Your task to perform on an android device: Search for a custom made wallet on Etsy Image 0: 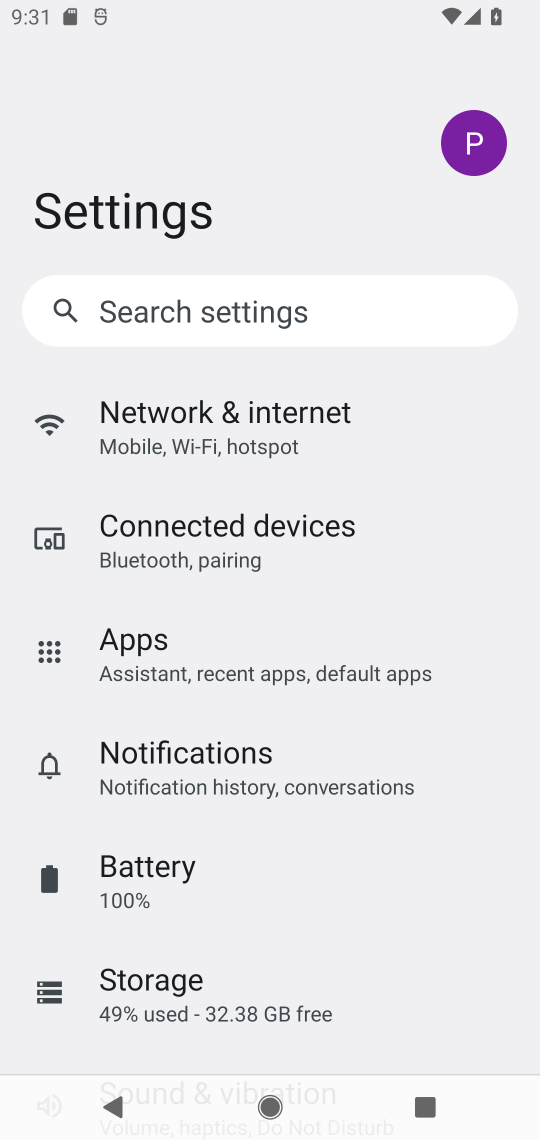
Step 0: press home button
Your task to perform on an android device: Search for a custom made wallet on Etsy Image 1: 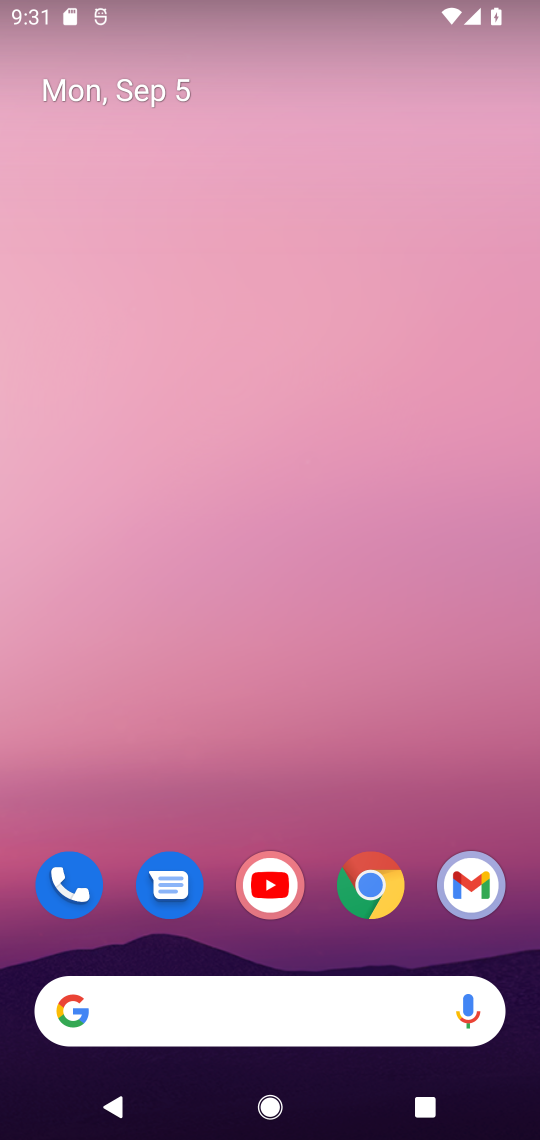
Step 1: drag from (300, 906) to (256, 50)
Your task to perform on an android device: Search for a custom made wallet on Etsy Image 2: 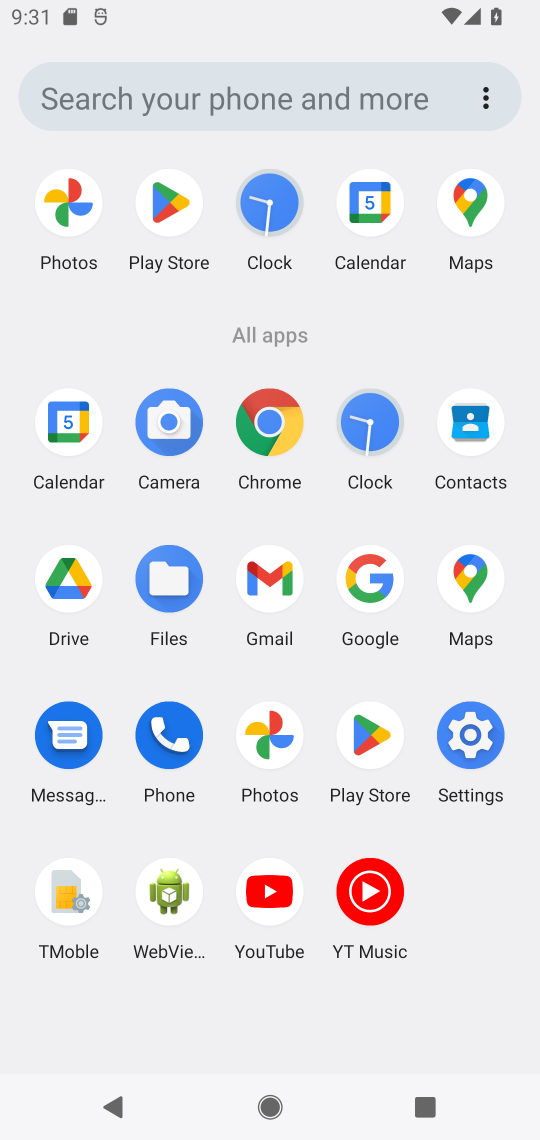
Step 2: click (365, 578)
Your task to perform on an android device: Search for a custom made wallet on Etsy Image 3: 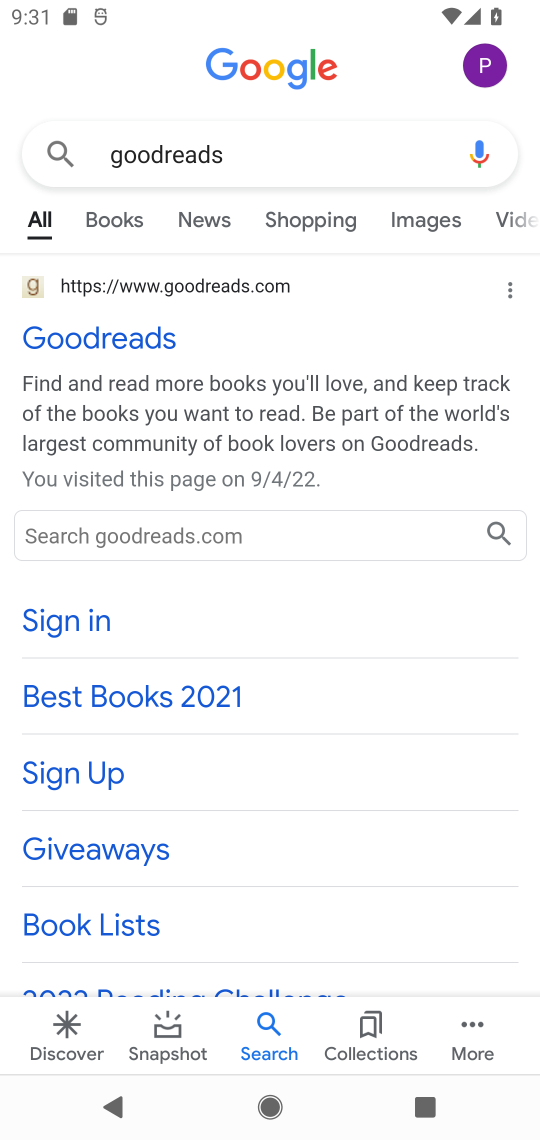
Step 3: click (59, 337)
Your task to perform on an android device: Search for a custom made wallet on Etsy Image 4: 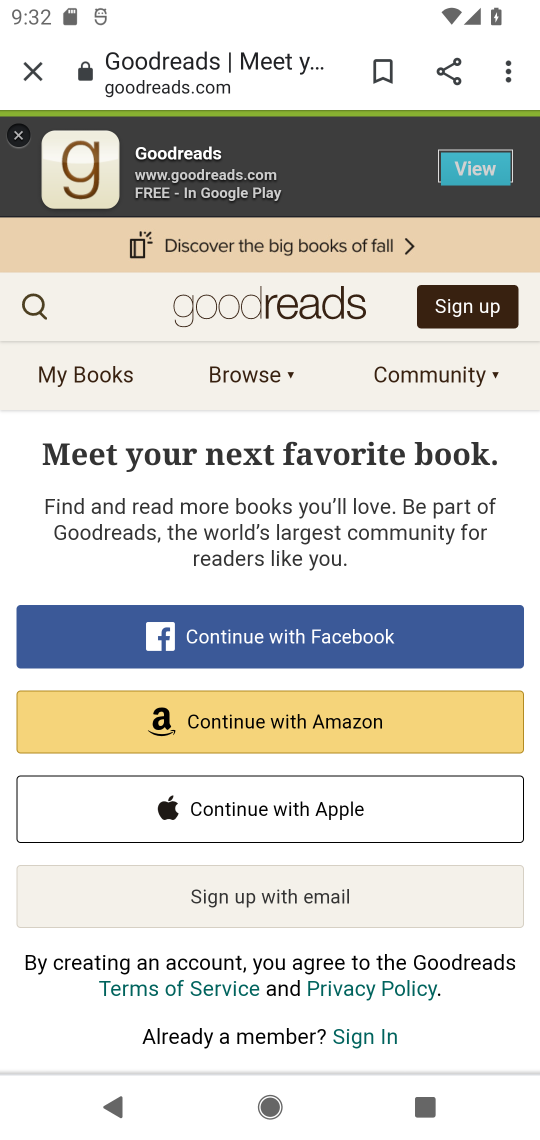
Step 4: click (505, 81)
Your task to perform on an android device: Search for a custom made wallet on Etsy Image 5: 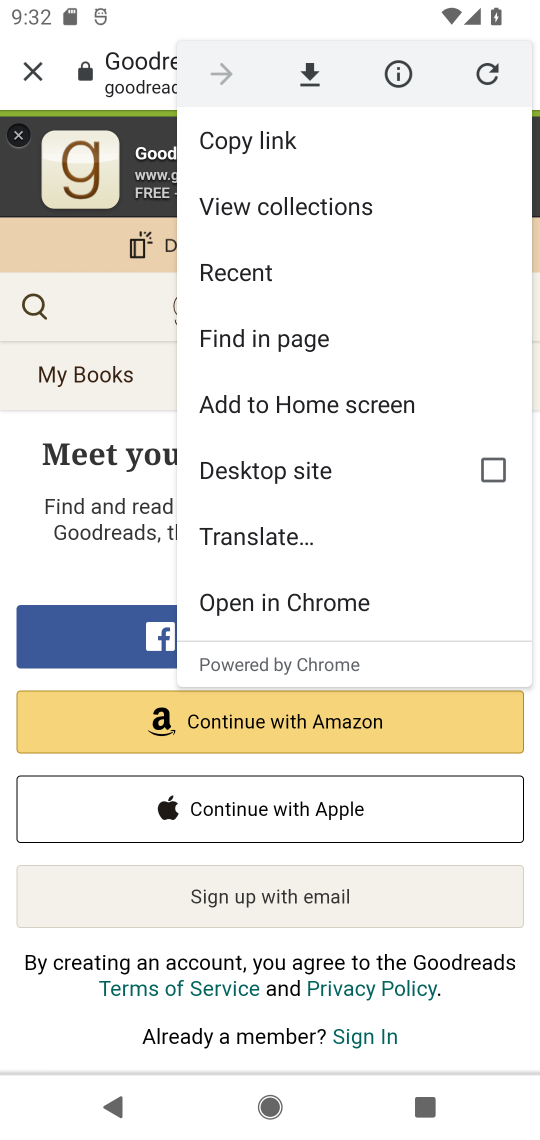
Step 5: click (36, 73)
Your task to perform on an android device: Search for a custom made wallet on Etsy Image 6: 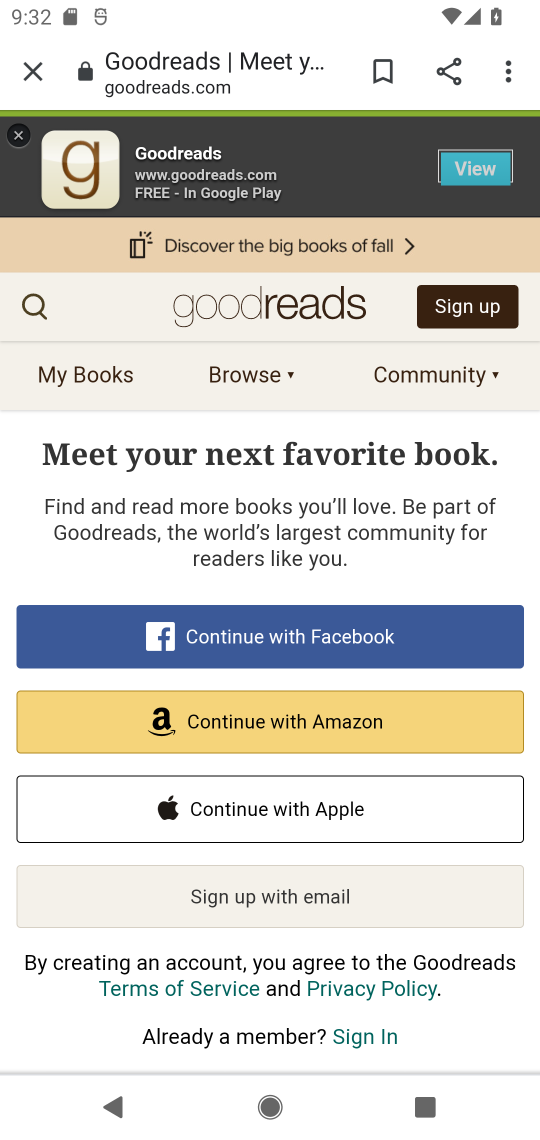
Step 6: click (27, 62)
Your task to perform on an android device: Search for a custom made wallet on Etsy Image 7: 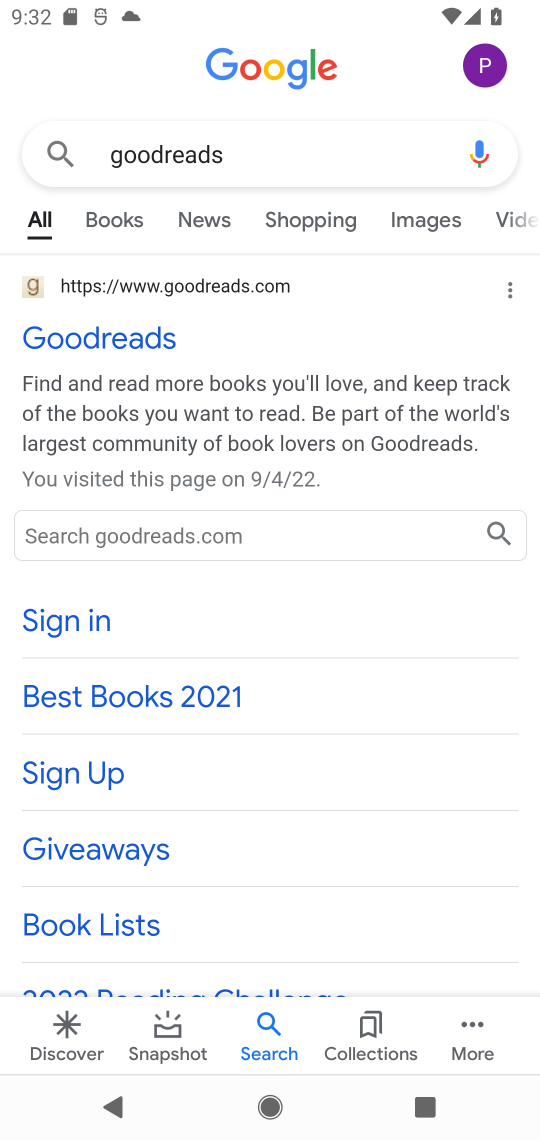
Step 7: click (292, 157)
Your task to perform on an android device: Search for a custom made wallet on Etsy Image 8: 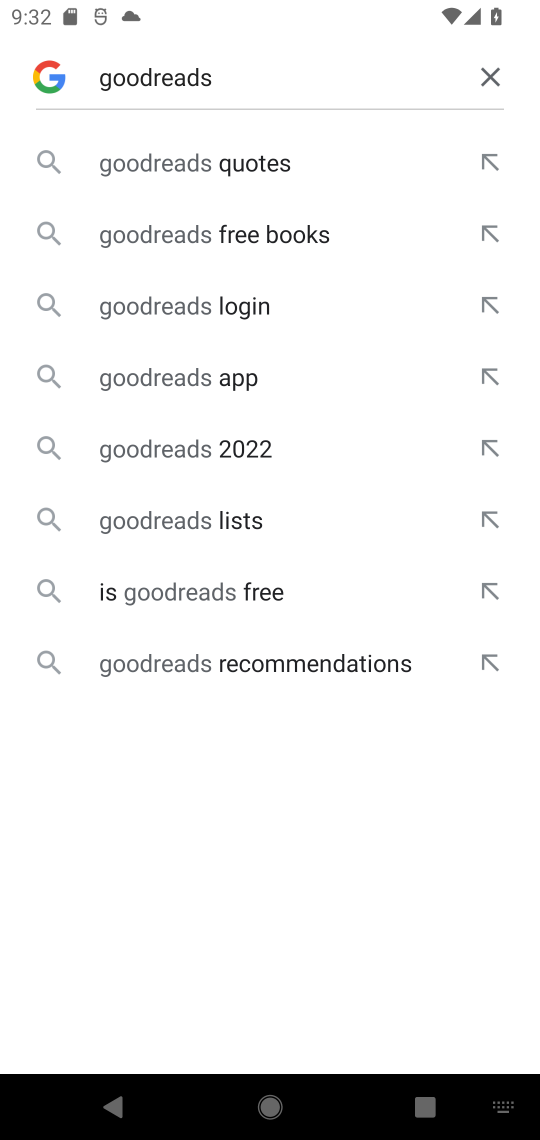
Step 8: click (491, 78)
Your task to perform on an android device: Search for a custom made wallet on Etsy Image 9: 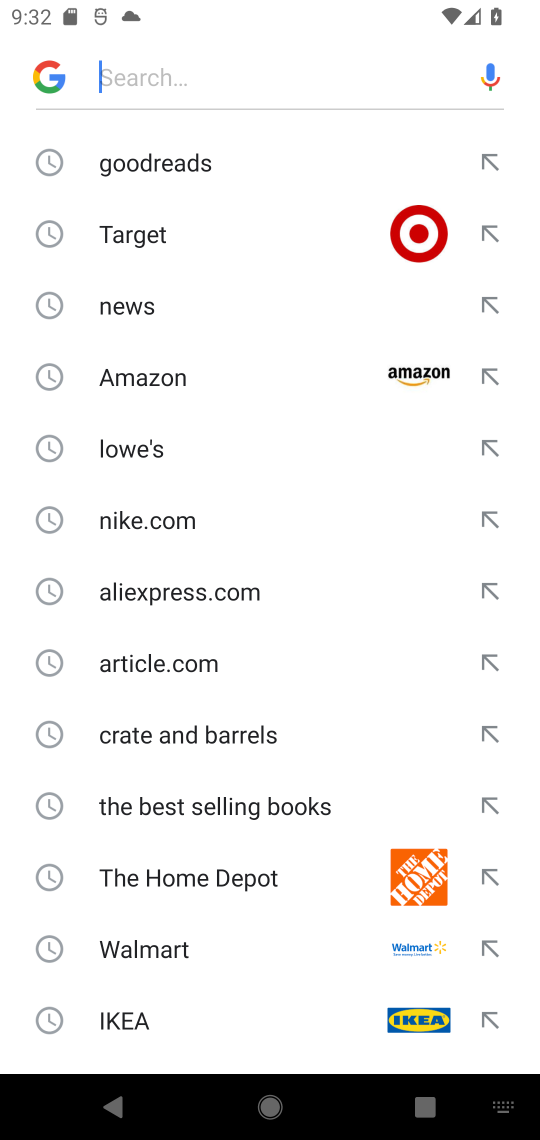
Step 9: type "Etsy"
Your task to perform on an android device: Search for a custom made wallet on Etsy Image 10: 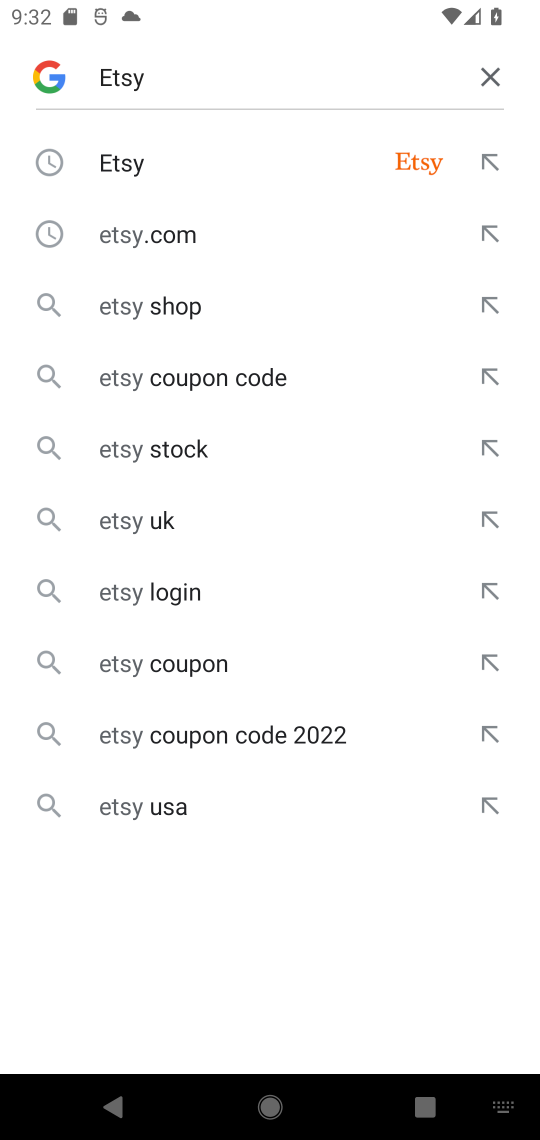
Step 10: click (121, 163)
Your task to perform on an android device: Search for a custom made wallet on Etsy Image 11: 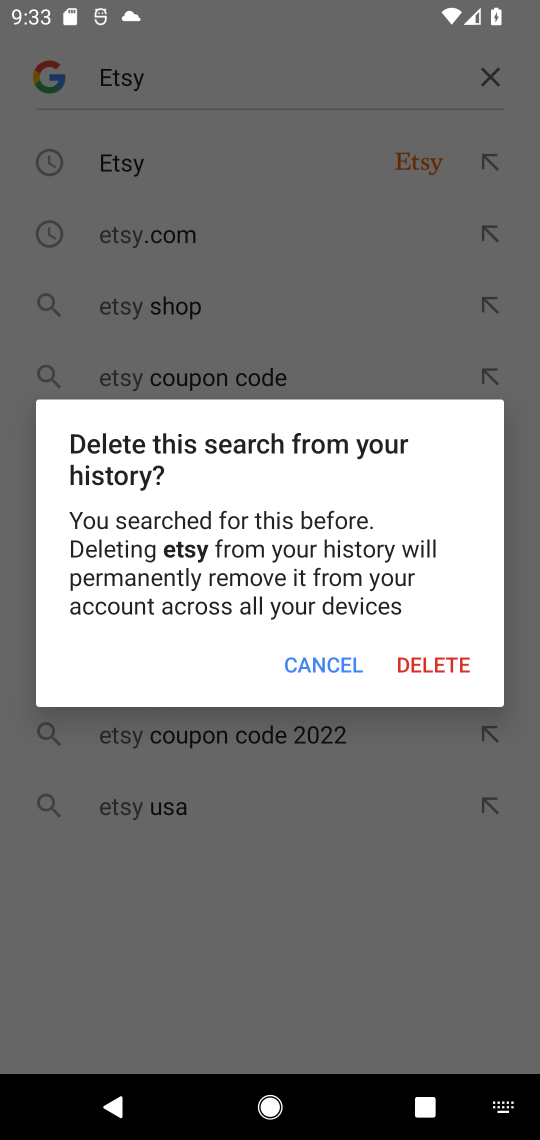
Step 11: click (121, 163)
Your task to perform on an android device: Search for a custom made wallet on Etsy Image 12: 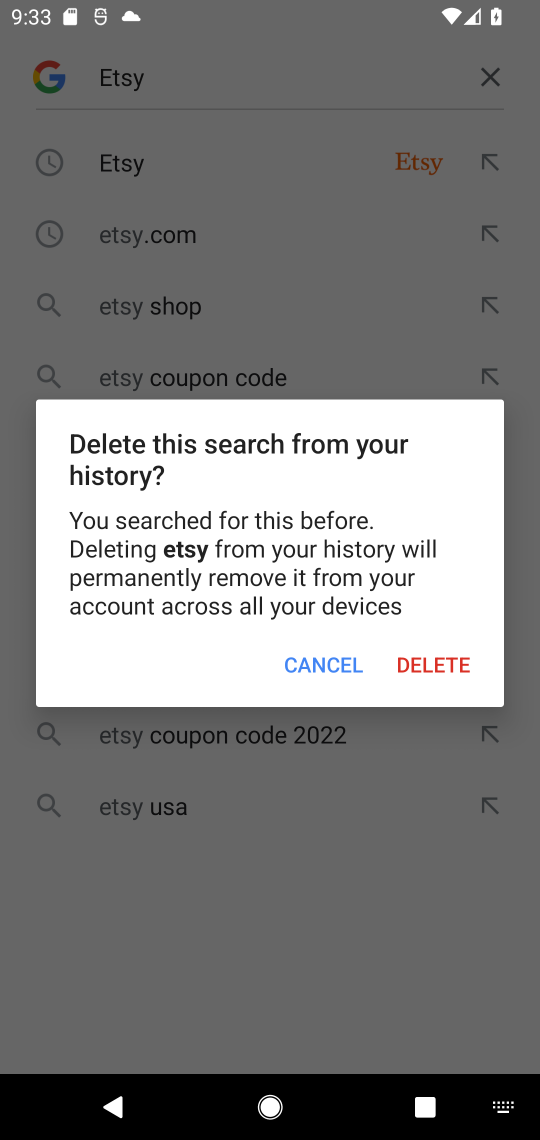
Step 12: click (121, 163)
Your task to perform on an android device: Search for a custom made wallet on Etsy Image 13: 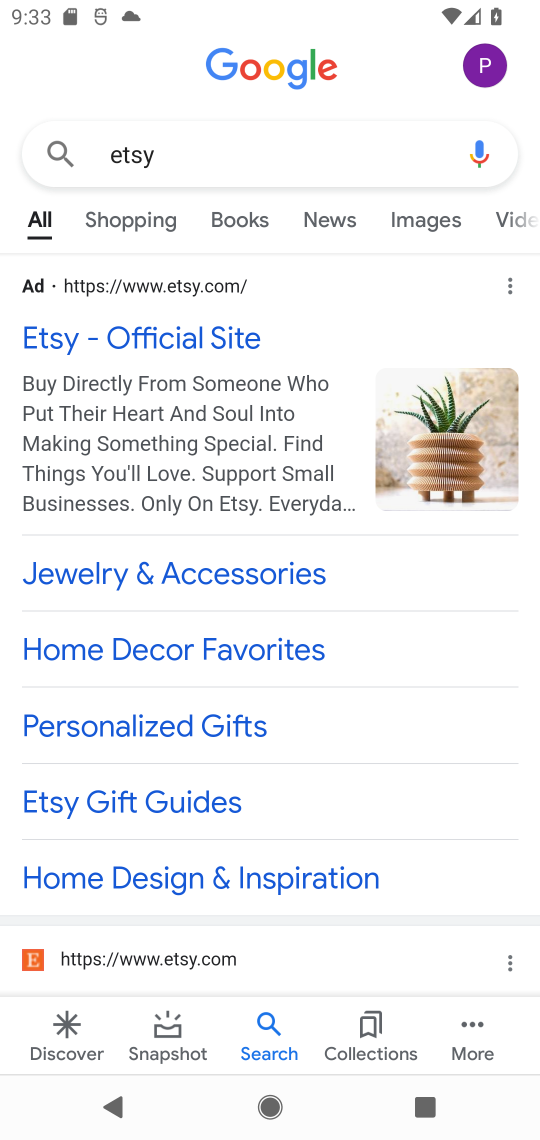
Step 13: click (129, 338)
Your task to perform on an android device: Search for a custom made wallet on Etsy Image 14: 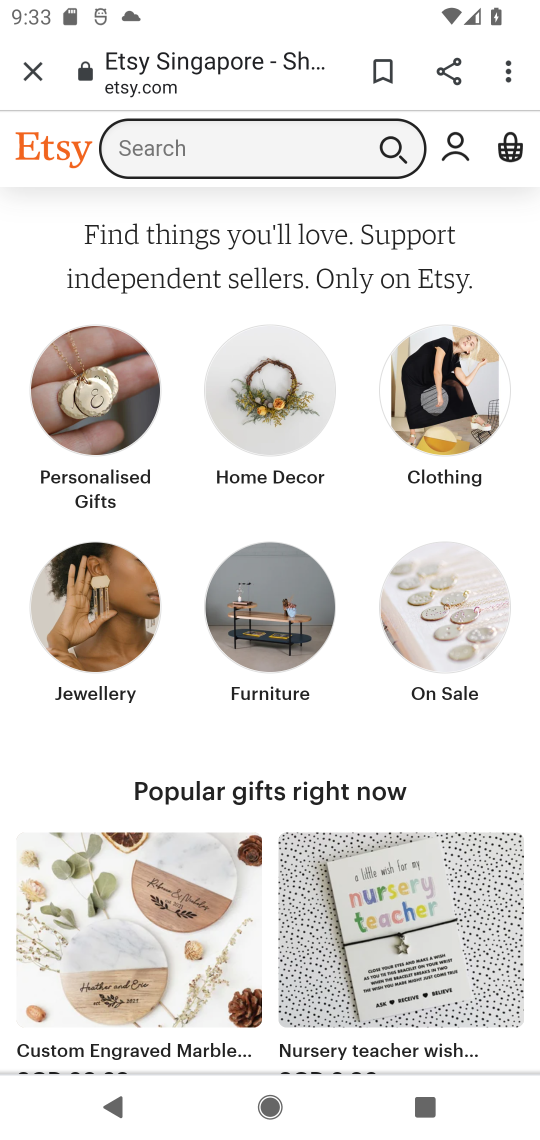
Step 14: click (246, 151)
Your task to perform on an android device: Search for a custom made wallet on Etsy Image 15: 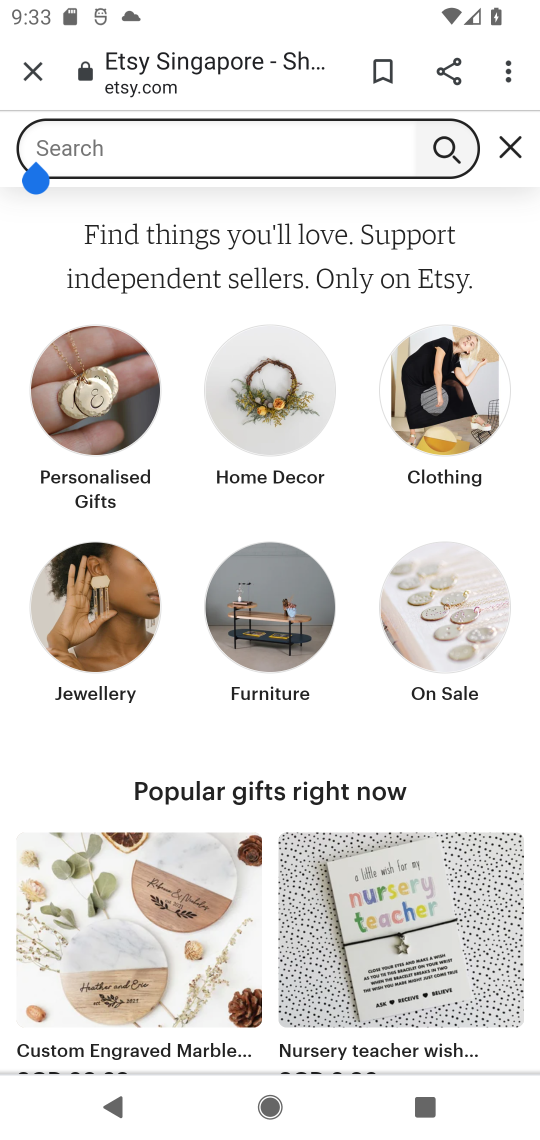
Step 15: type "custom made wallet"
Your task to perform on an android device: Search for a custom made wallet on Etsy Image 16: 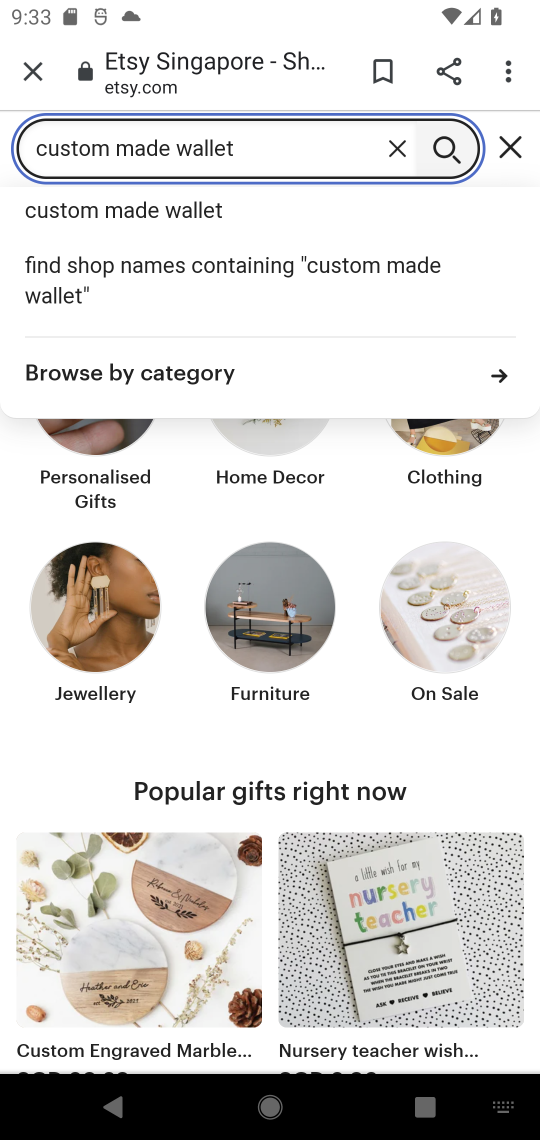
Step 16: click (119, 207)
Your task to perform on an android device: Search for a custom made wallet on Etsy Image 17: 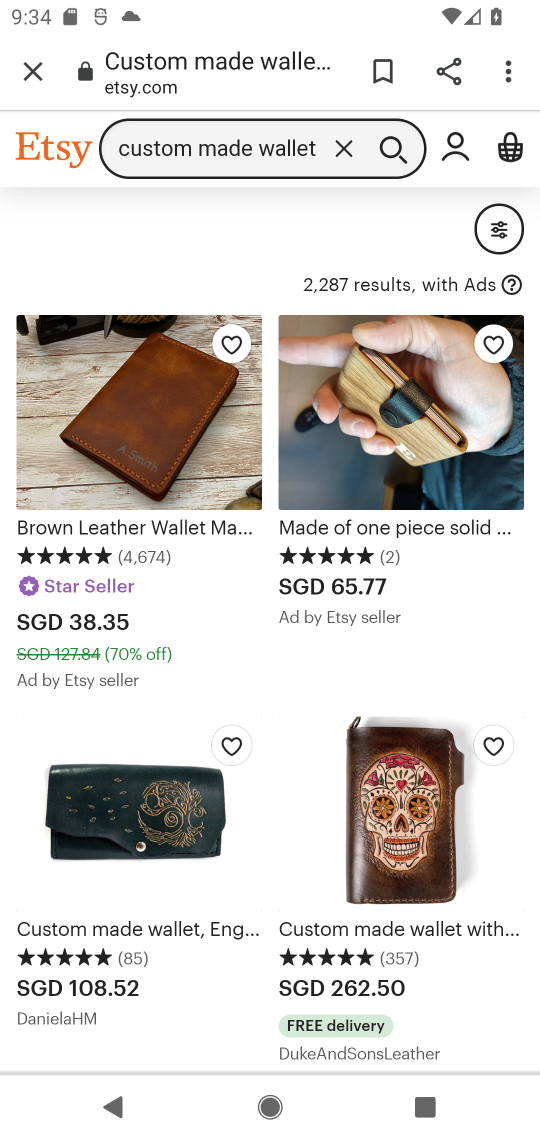
Step 17: task complete